Your task to perform on an android device: Show me the best rated power washer on Home Depot. Image 0: 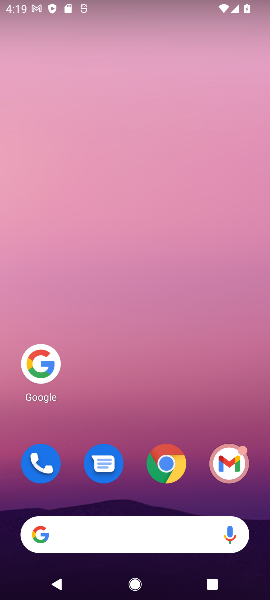
Step 0: click (34, 365)
Your task to perform on an android device: Show me the best rated power washer on Home Depot. Image 1: 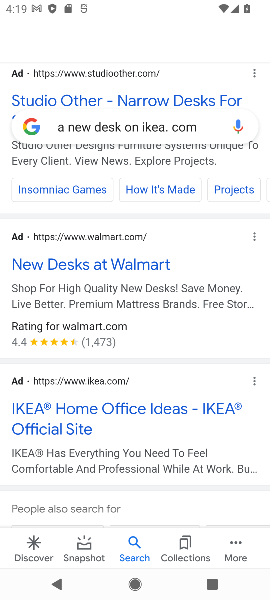
Step 1: click (101, 118)
Your task to perform on an android device: Show me the best rated power washer on Home Depot. Image 2: 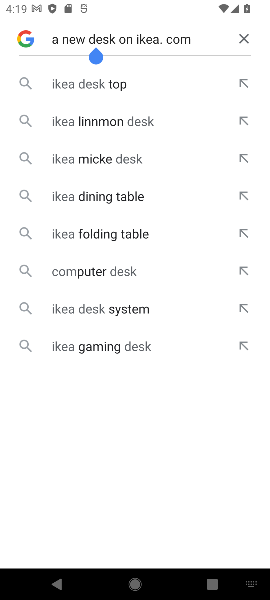
Step 2: click (244, 38)
Your task to perform on an android device: Show me the best rated power washer on Home Depot. Image 3: 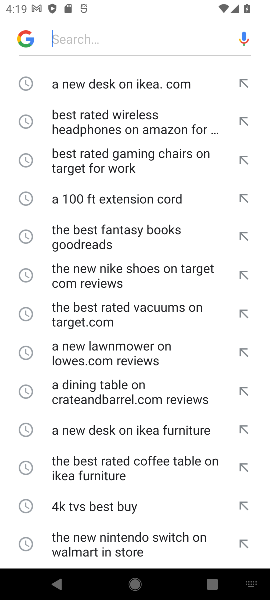
Step 3: click (125, 39)
Your task to perform on an android device: Show me the best rated power washer on Home Depot. Image 4: 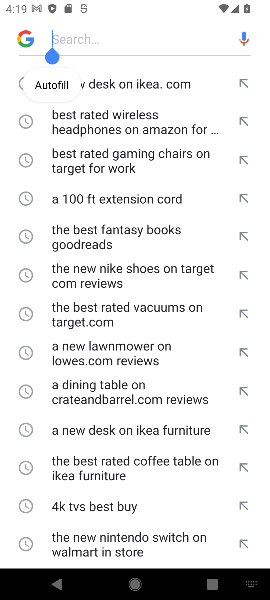
Step 4: type " the best rated power washer on Home Depot "
Your task to perform on an android device: Show me the best rated power washer on Home Depot. Image 5: 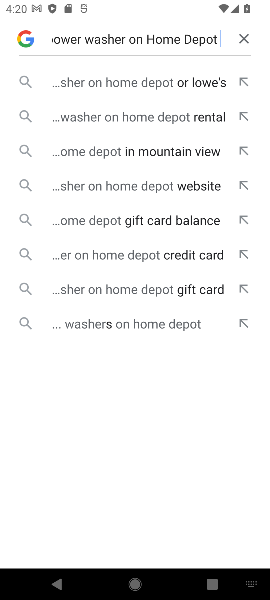
Step 5: click (155, 82)
Your task to perform on an android device: Show me the best rated power washer on Home Depot. Image 6: 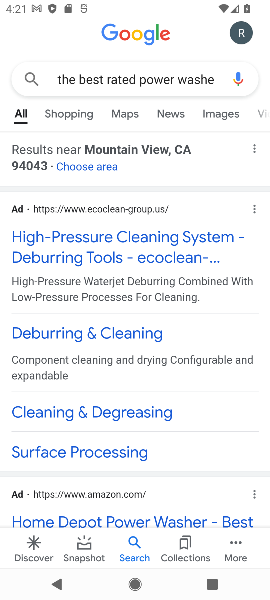
Step 6: drag from (173, 507) to (180, 201)
Your task to perform on an android device: Show me the best rated power washer on Home Depot. Image 7: 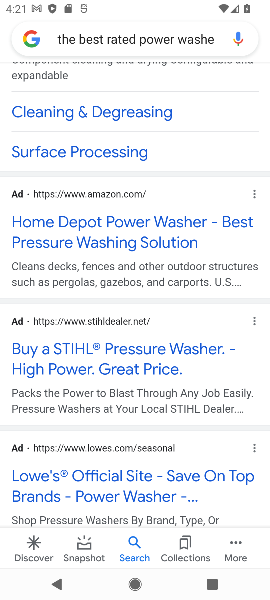
Step 7: click (115, 228)
Your task to perform on an android device: Show me the best rated power washer on Home Depot. Image 8: 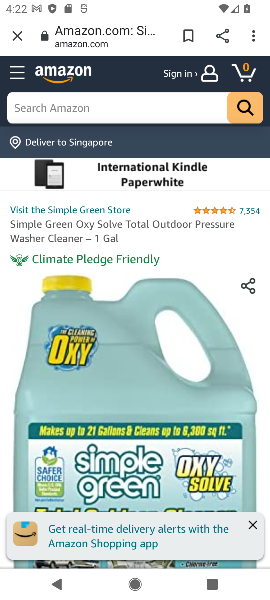
Step 8: task complete